Your task to perform on an android device: Open Google Chrome and click the shortcut for Amazon.com Image 0: 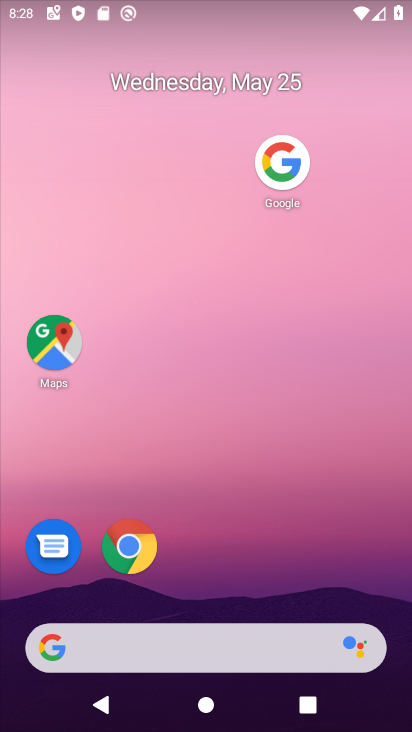
Step 0: click (128, 545)
Your task to perform on an android device: Open Google Chrome and click the shortcut for Amazon.com Image 1: 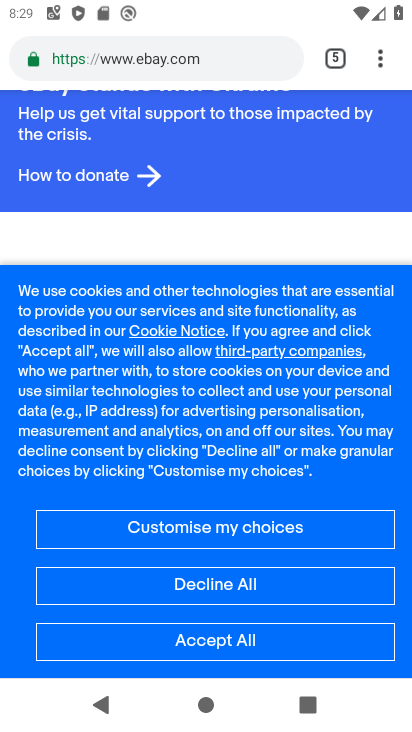
Step 1: drag from (377, 61) to (261, 107)
Your task to perform on an android device: Open Google Chrome and click the shortcut for Amazon.com Image 2: 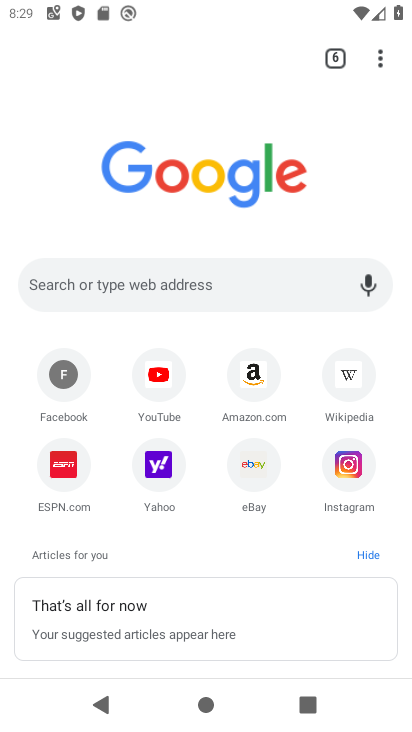
Step 2: click (258, 377)
Your task to perform on an android device: Open Google Chrome and click the shortcut for Amazon.com Image 3: 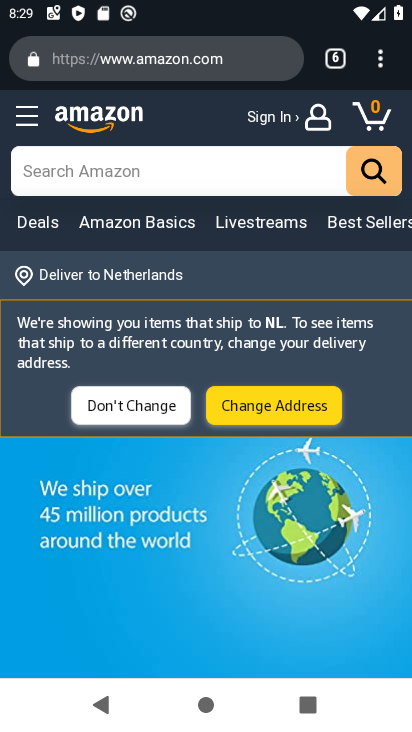
Step 3: task complete